Your task to perform on an android device: Do I have any events tomorrow? Image 0: 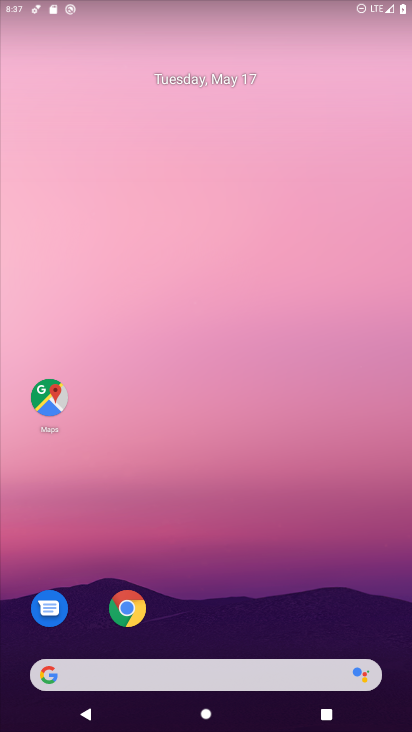
Step 0: drag from (211, 630) to (332, 142)
Your task to perform on an android device: Do I have any events tomorrow? Image 1: 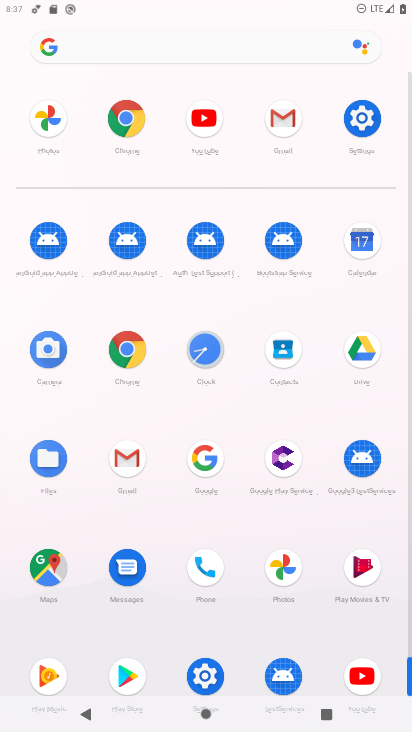
Step 1: click (366, 255)
Your task to perform on an android device: Do I have any events tomorrow? Image 2: 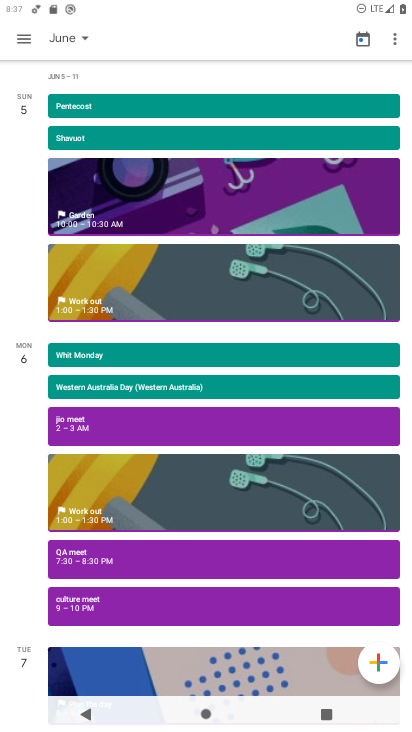
Step 2: click (27, 52)
Your task to perform on an android device: Do I have any events tomorrow? Image 3: 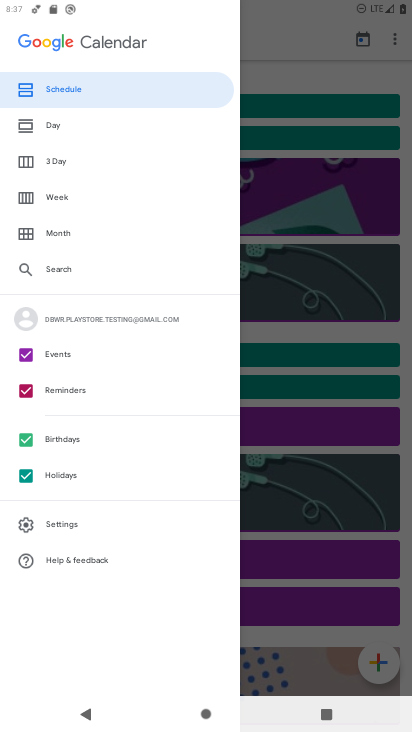
Step 3: click (67, 167)
Your task to perform on an android device: Do I have any events tomorrow? Image 4: 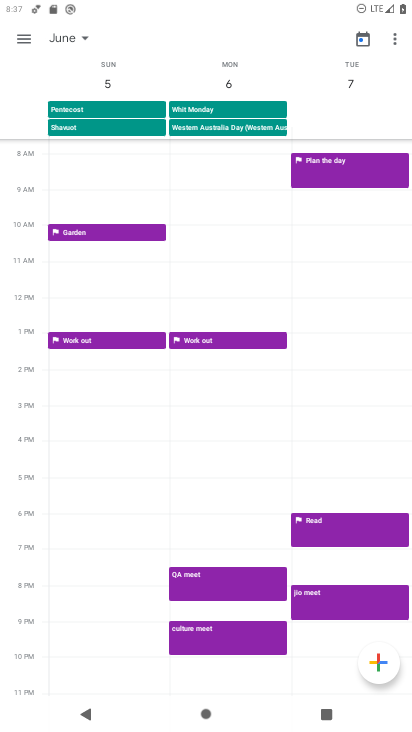
Step 4: click (22, 37)
Your task to perform on an android device: Do I have any events tomorrow? Image 5: 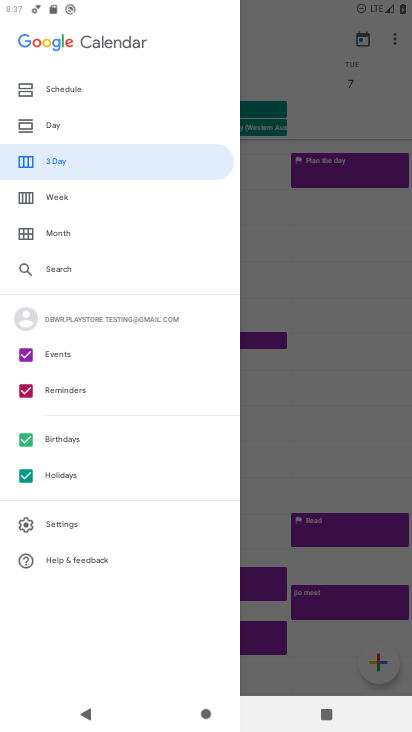
Step 5: click (57, 441)
Your task to perform on an android device: Do I have any events tomorrow? Image 6: 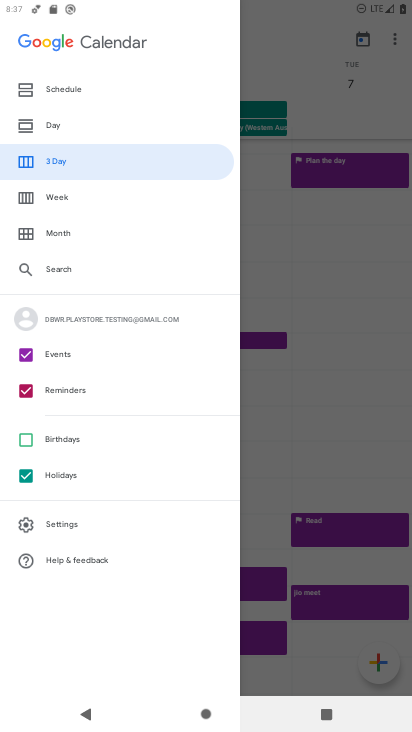
Step 6: click (45, 387)
Your task to perform on an android device: Do I have any events tomorrow? Image 7: 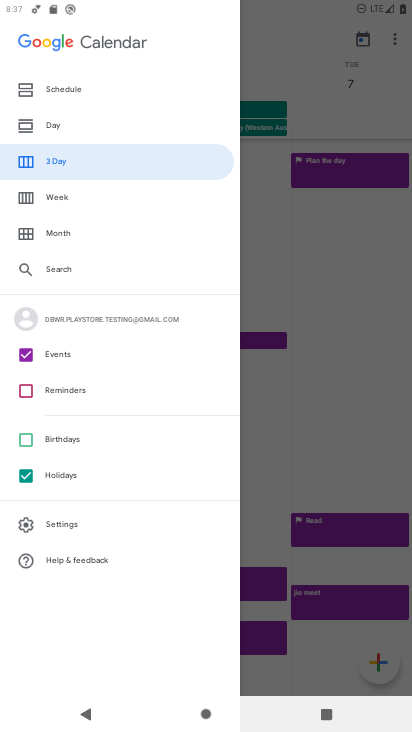
Step 7: click (29, 476)
Your task to perform on an android device: Do I have any events tomorrow? Image 8: 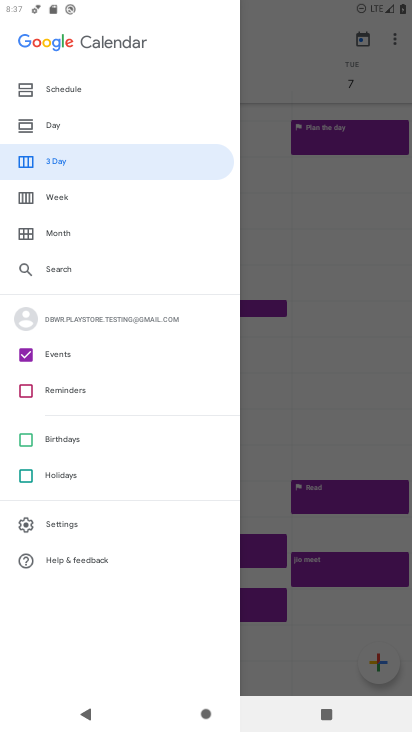
Step 8: click (330, 199)
Your task to perform on an android device: Do I have any events tomorrow? Image 9: 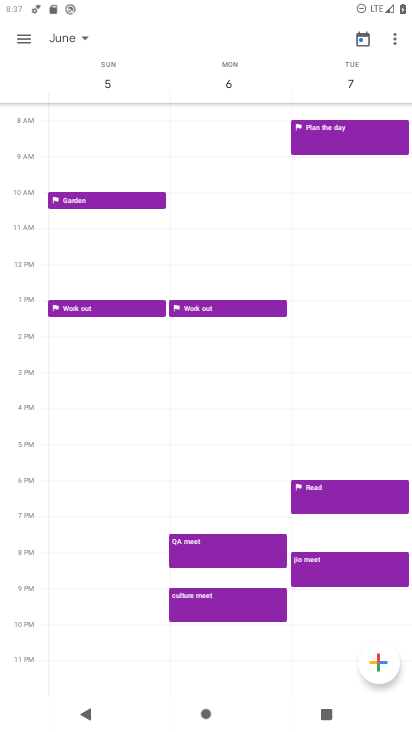
Step 9: task complete